Your task to perform on an android device: install app "Pluto TV - Live TV and Movies" Image 0: 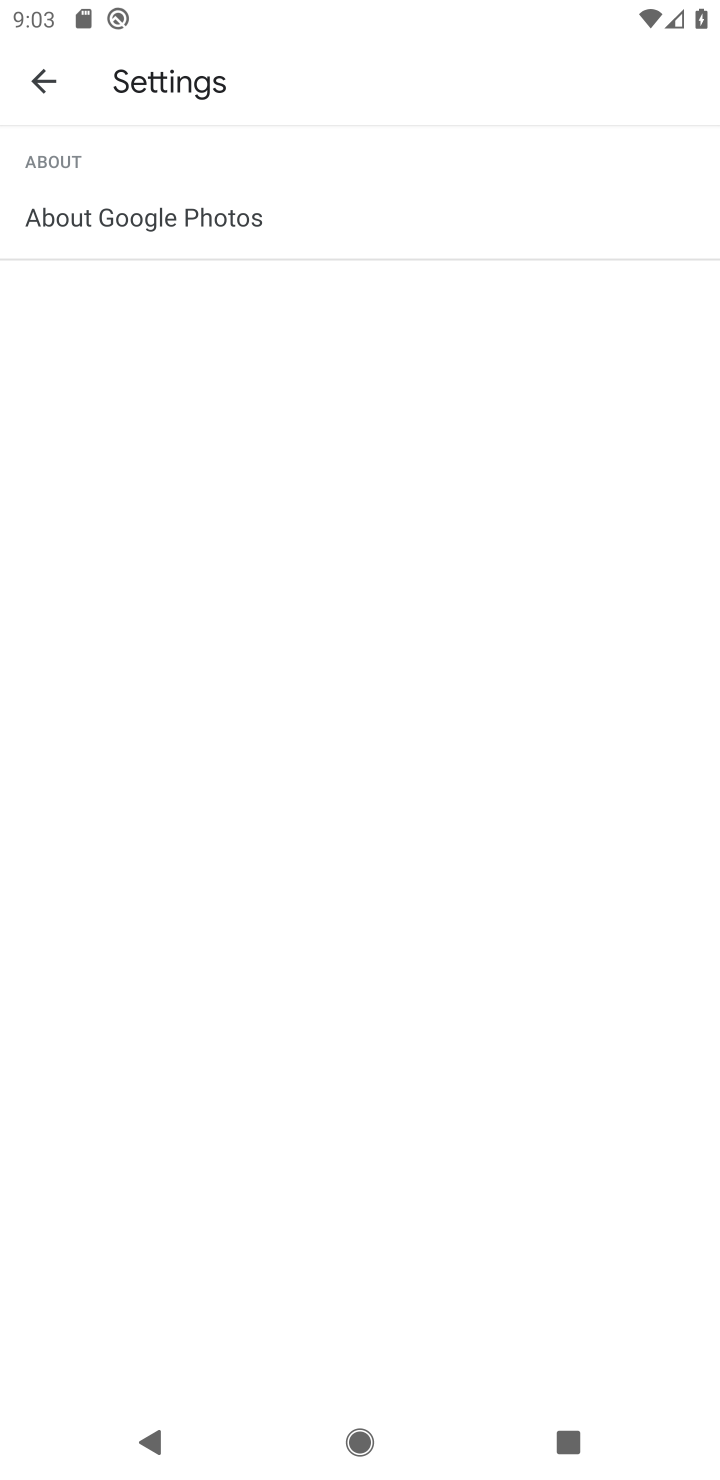
Step 0: press home button
Your task to perform on an android device: install app "Pluto TV - Live TV and Movies" Image 1: 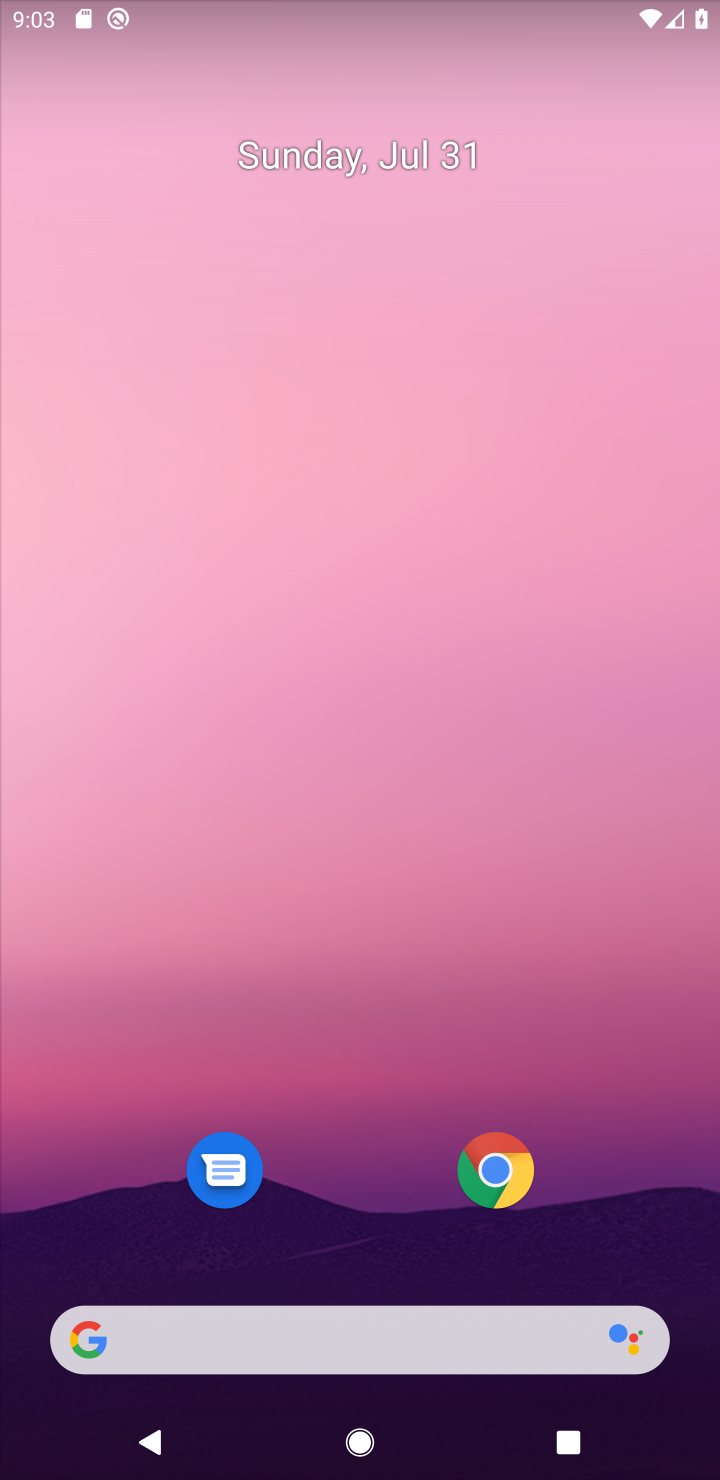
Step 1: drag from (628, 1100) to (341, 102)
Your task to perform on an android device: install app "Pluto TV - Live TV and Movies" Image 2: 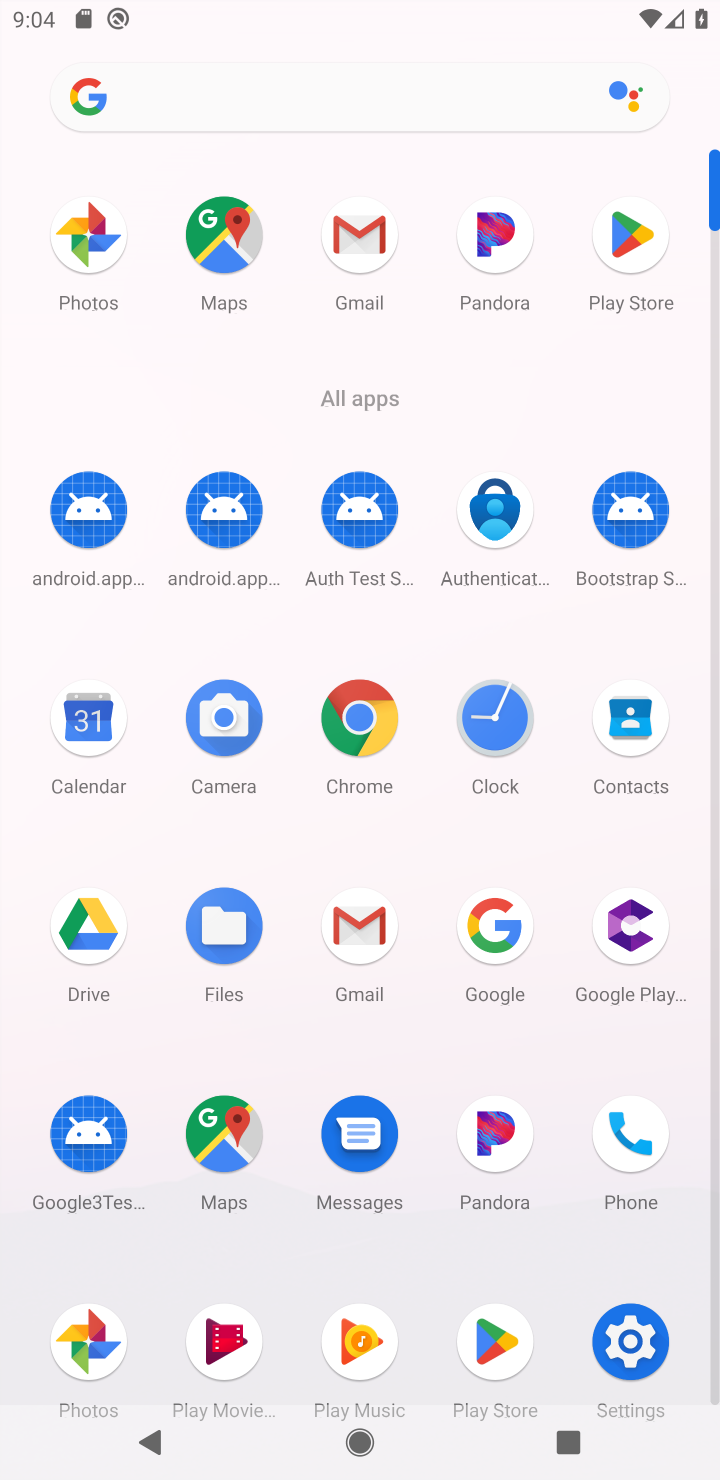
Step 2: click (628, 247)
Your task to perform on an android device: install app "Pluto TV - Live TV and Movies" Image 3: 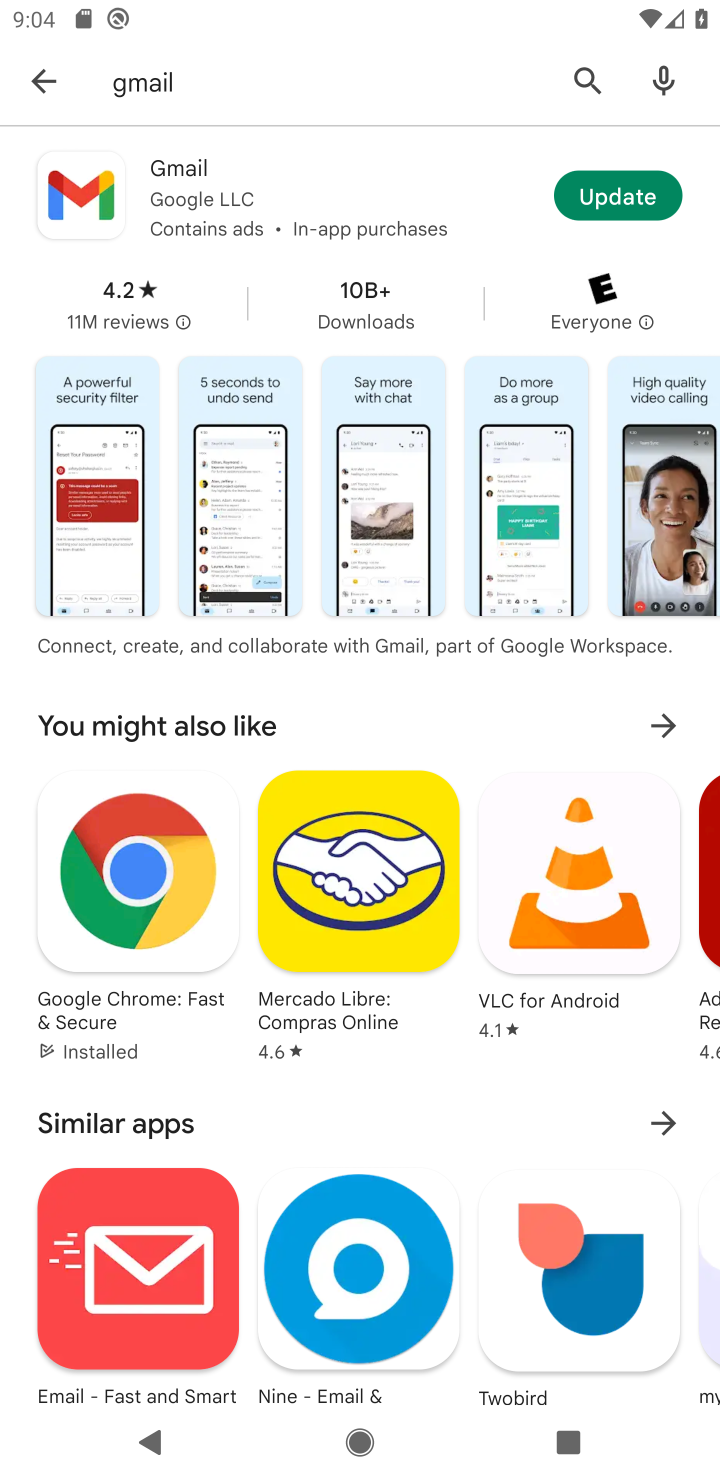
Step 3: press back button
Your task to perform on an android device: install app "Pluto TV - Live TV and Movies" Image 4: 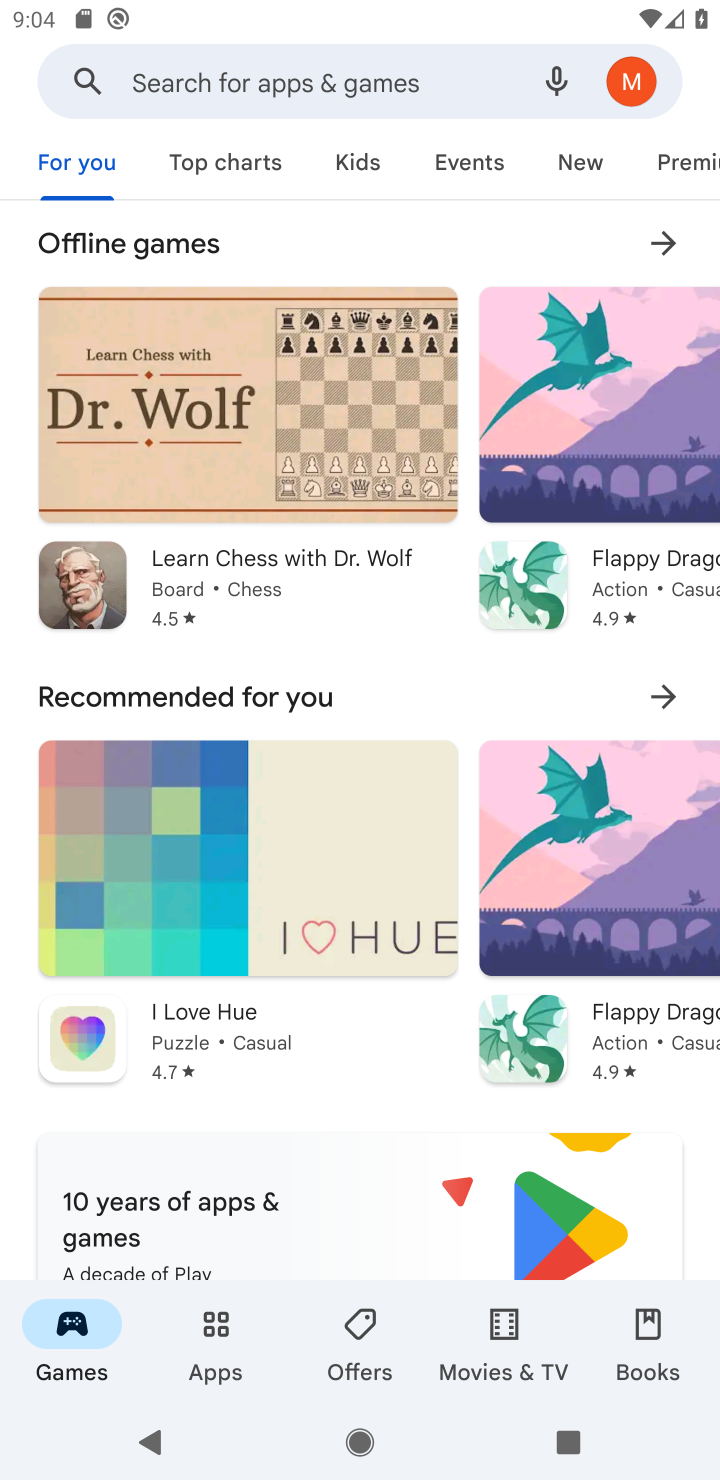
Step 4: type "Pluto TV - Live TV and Movies"
Your task to perform on an android device: install app "Pluto TV - Live TV and Movies" Image 5: 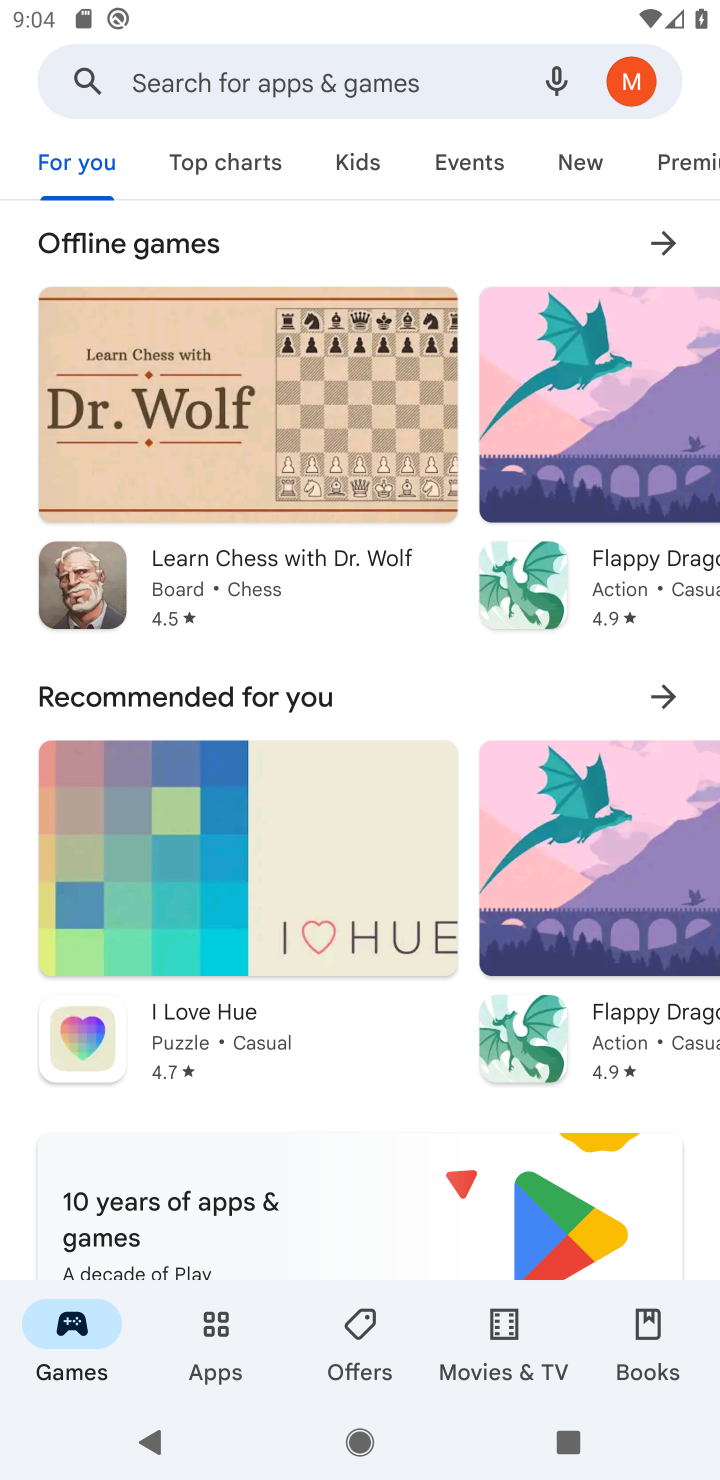
Step 5: click (221, 80)
Your task to perform on an android device: install app "Pluto TV - Live TV and Movies" Image 6: 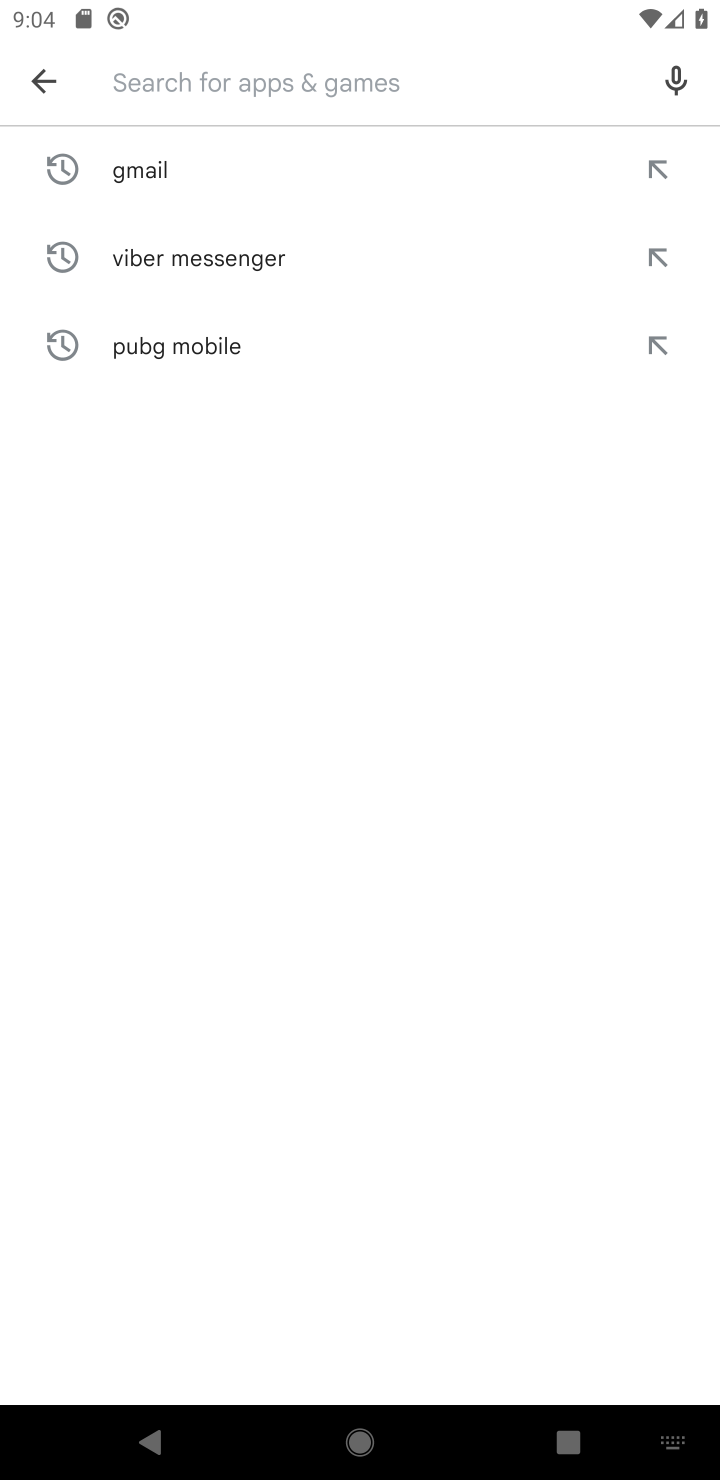
Step 6: click (178, 97)
Your task to perform on an android device: install app "Pluto TV - Live TV and Movies" Image 7: 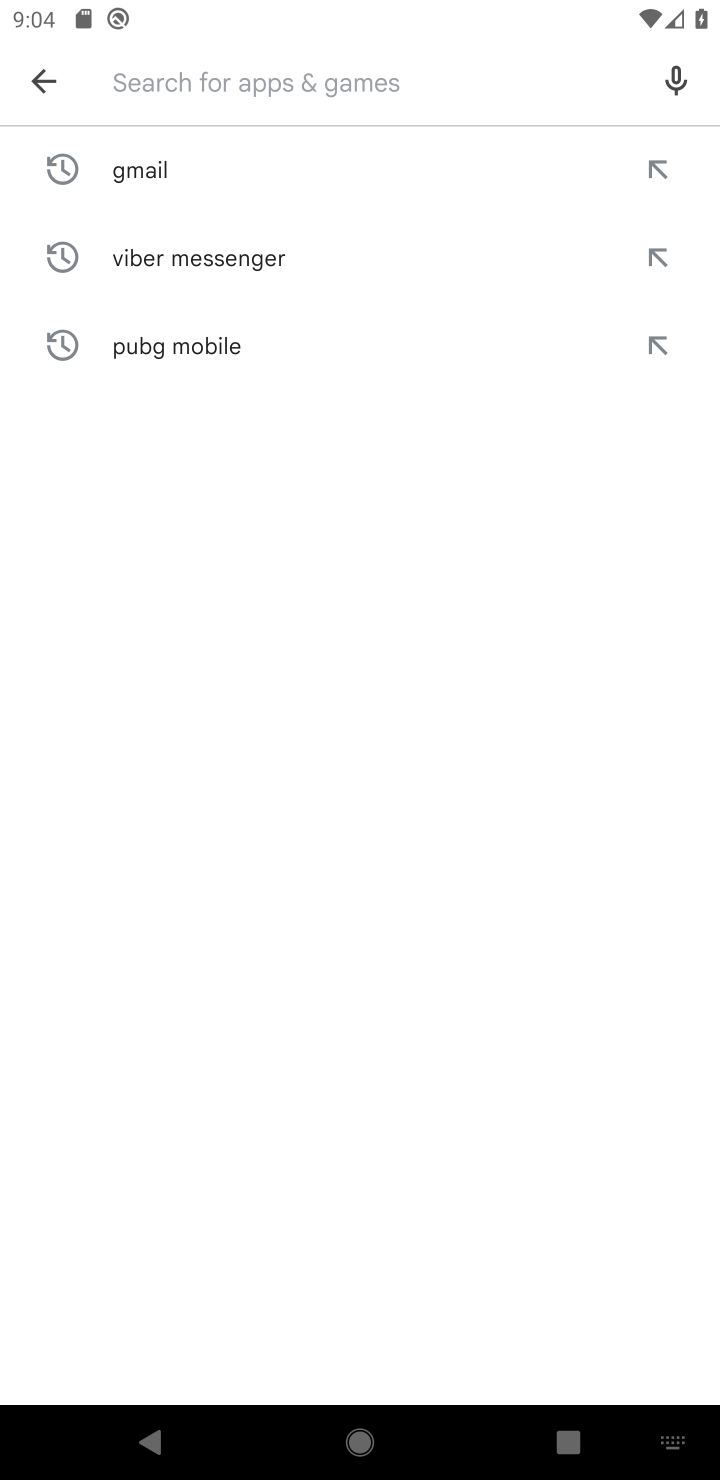
Step 7: type "Pluto TV - Live TV and Movies"
Your task to perform on an android device: install app "Pluto TV - Live TV and Movies" Image 8: 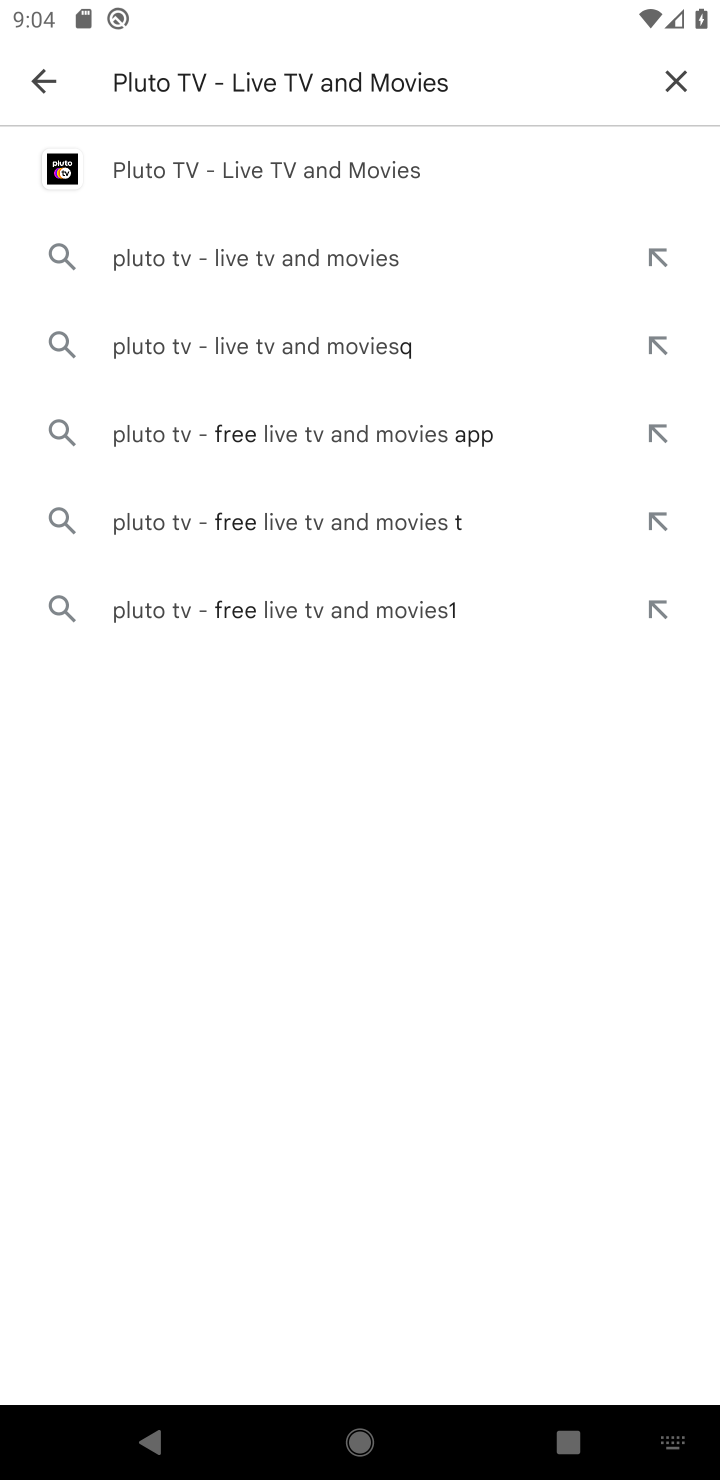
Step 8: click (229, 168)
Your task to perform on an android device: install app "Pluto TV - Live TV and Movies" Image 9: 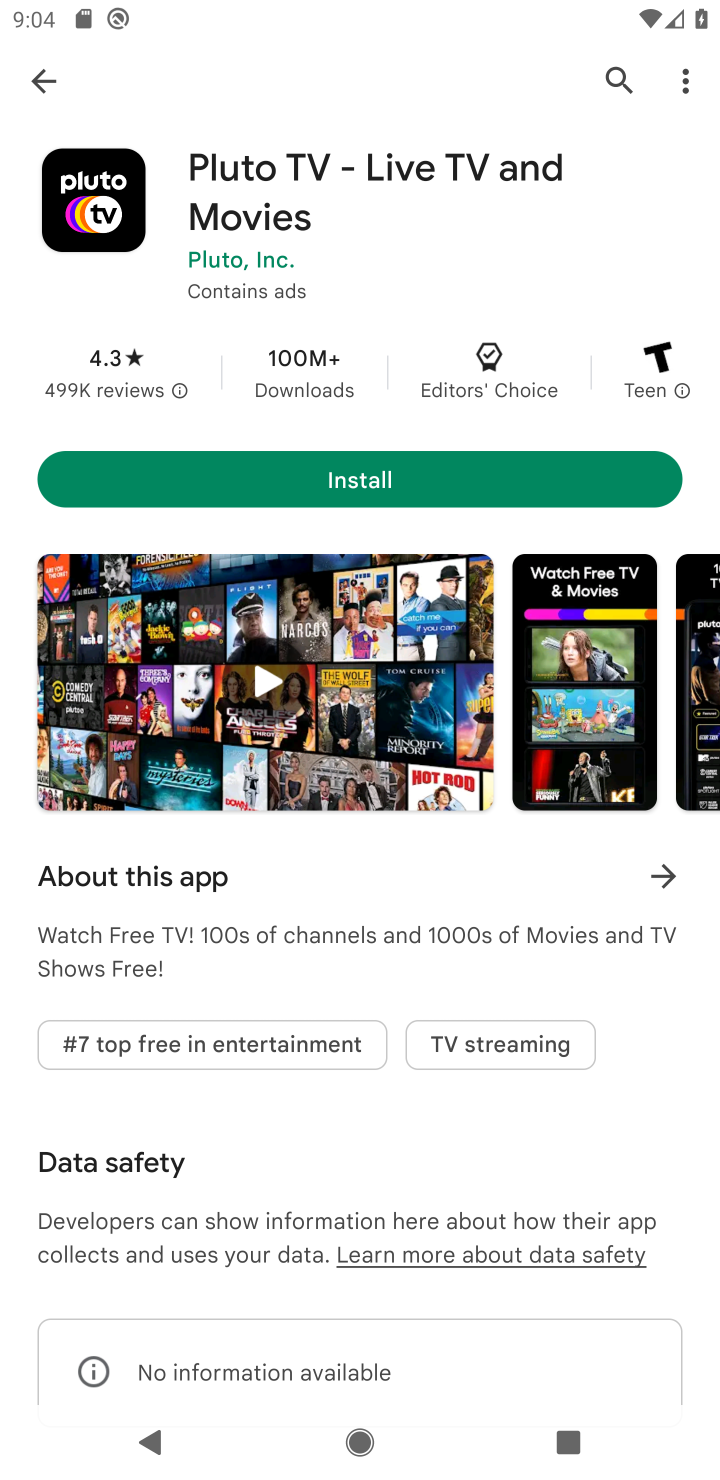
Step 9: click (402, 485)
Your task to perform on an android device: install app "Pluto TV - Live TV and Movies" Image 10: 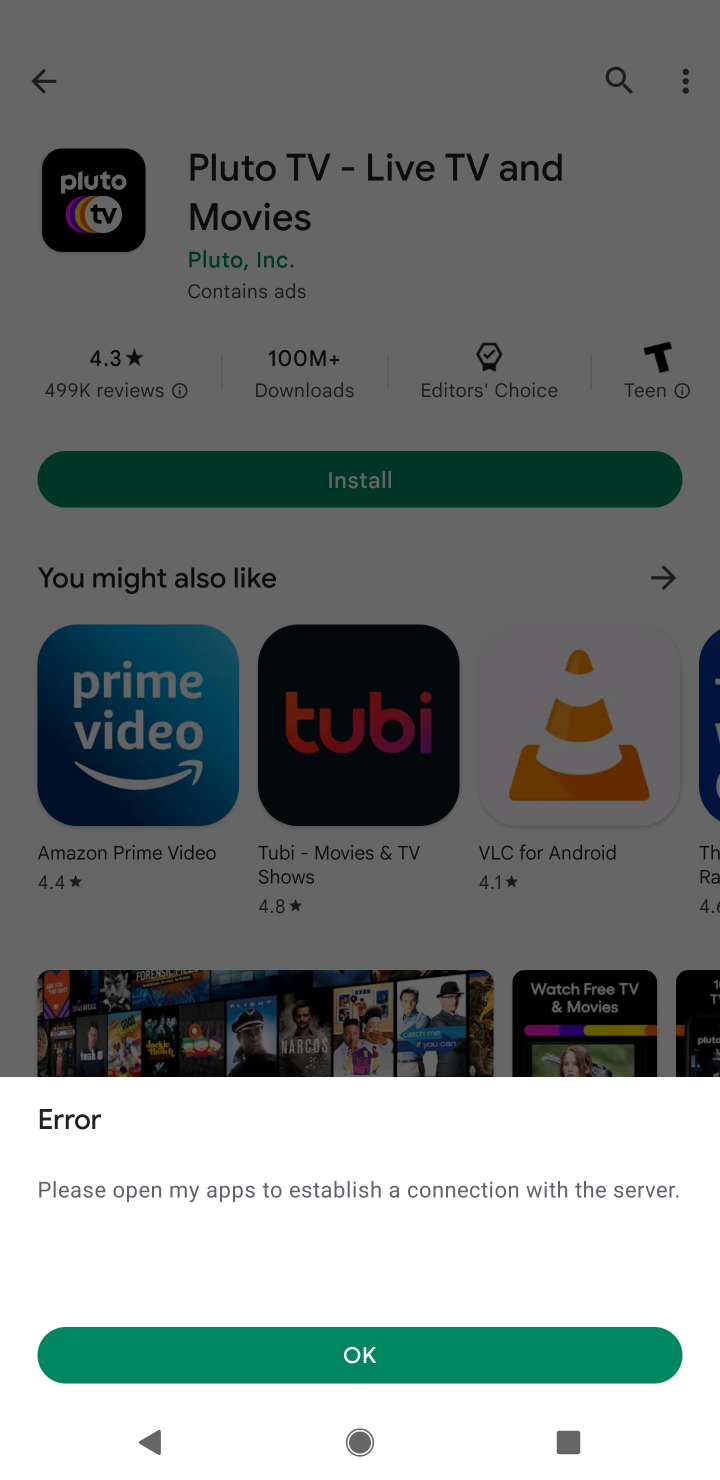
Step 10: task complete